Your task to perform on an android device: set the timer Image 0: 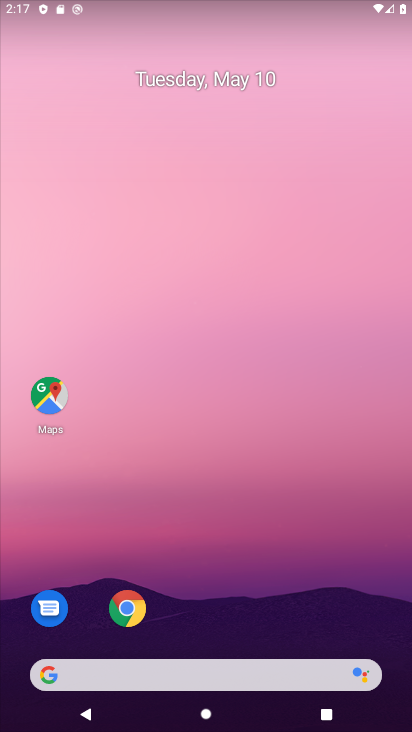
Step 0: drag from (379, 626) to (317, 216)
Your task to perform on an android device: set the timer Image 1: 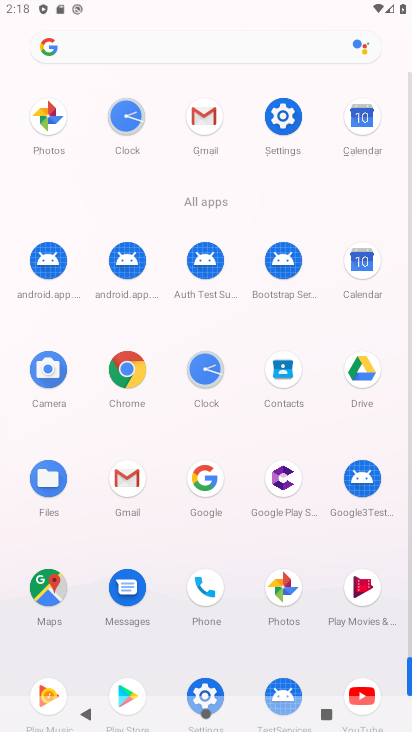
Step 1: click (411, 647)
Your task to perform on an android device: set the timer Image 2: 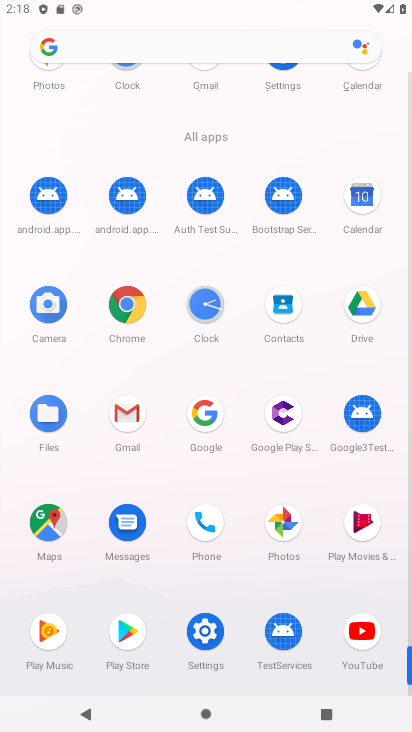
Step 2: click (204, 307)
Your task to perform on an android device: set the timer Image 3: 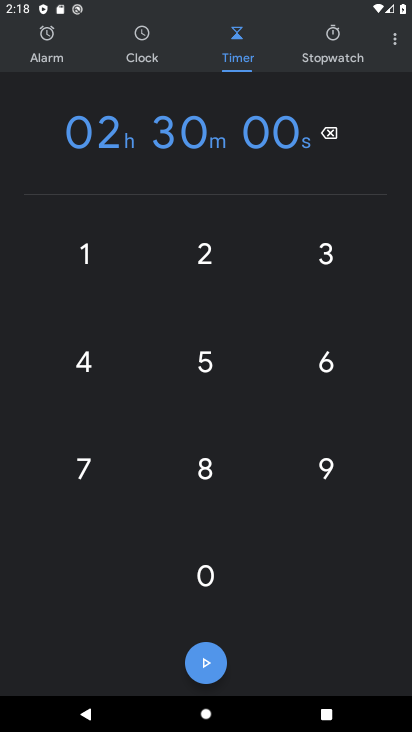
Step 3: task complete